Your task to perform on an android device: Go to Google Image 0: 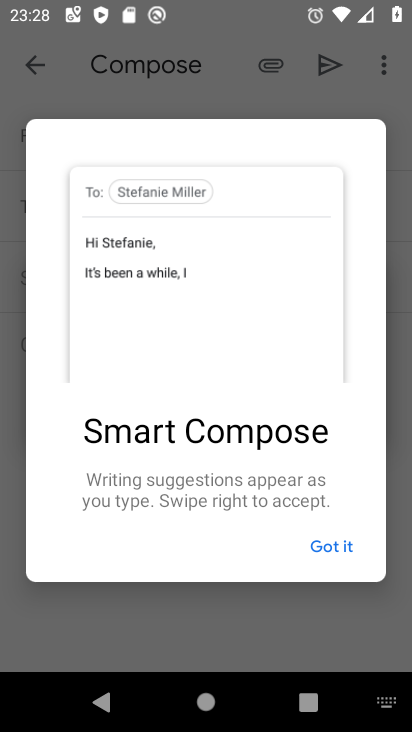
Step 0: press home button
Your task to perform on an android device: Go to Google Image 1: 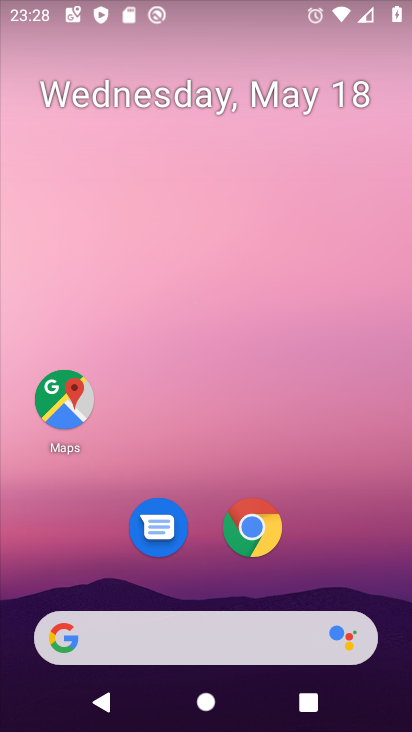
Step 1: click (251, 540)
Your task to perform on an android device: Go to Google Image 2: 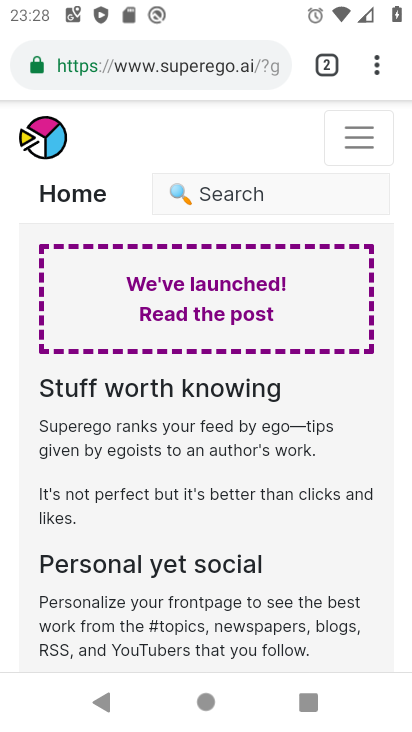
Step 2: click (179, 51)
Your task to perform on an android device: Go to Google Image 3: 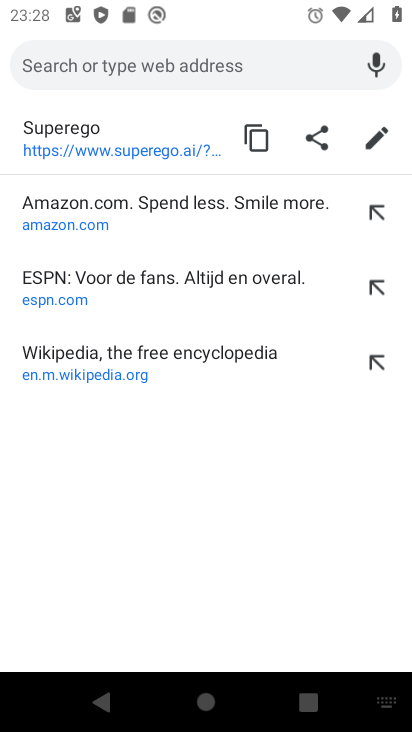
Step 3: type "google.com"
Your task to perform on an android device: Go to Google Image 4: 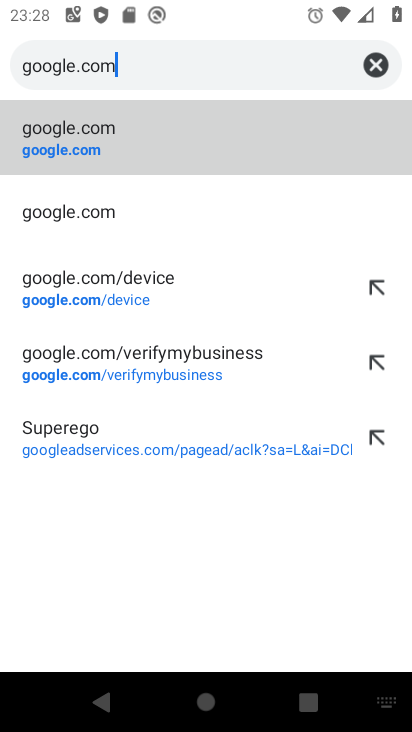
Step 4: click (170, 147)
Your task to perform on an android device: Go to Google Image 5: 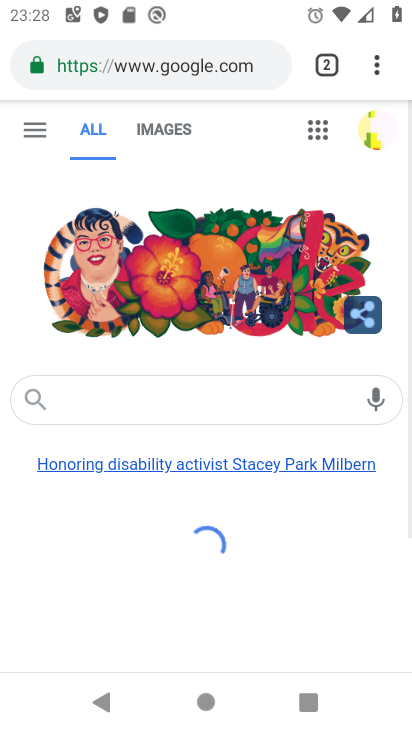
Step 5: task complete